Your task to perform on an android device: delete location history Image 0: 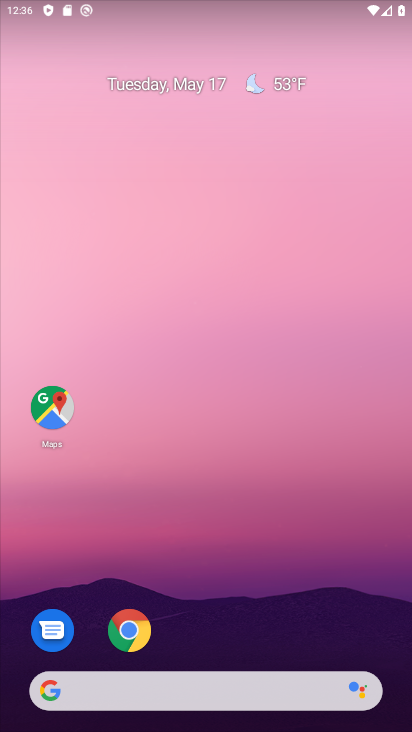
Step 0: drag from (199, 666) to (178, 111)
Your task to perform on an android device: delete location history Image 1: 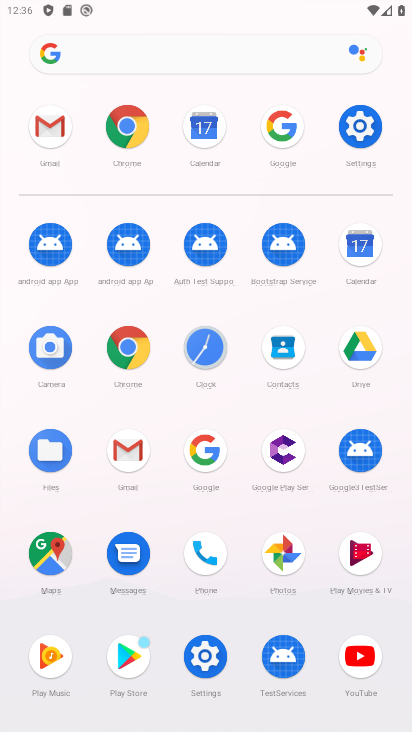
Step 1: click (359, 130)
Your task to perform on an android device: delete location history Image 2: 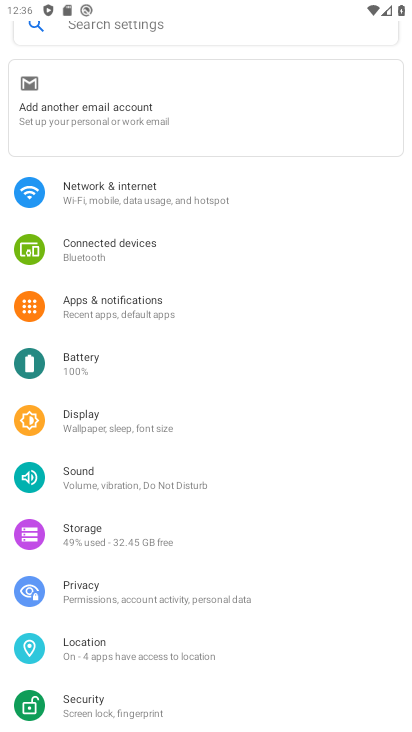
Step 2: click (120, 659)
Your task to perform on an android device: delete location history Image 3: 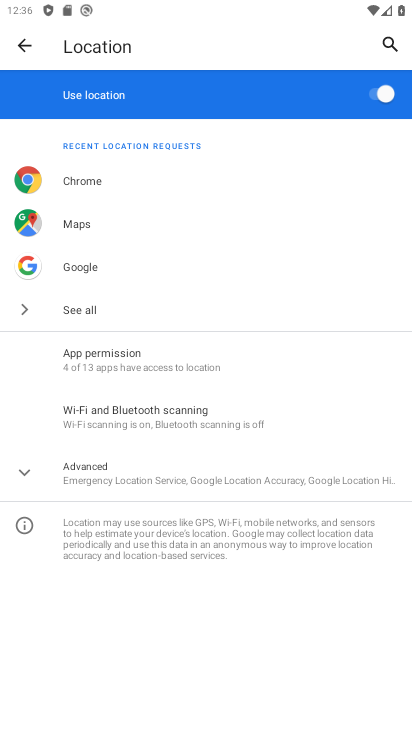
Step 3: click (111, 484)
Your task to perform on an android device: delete location history Image 4: 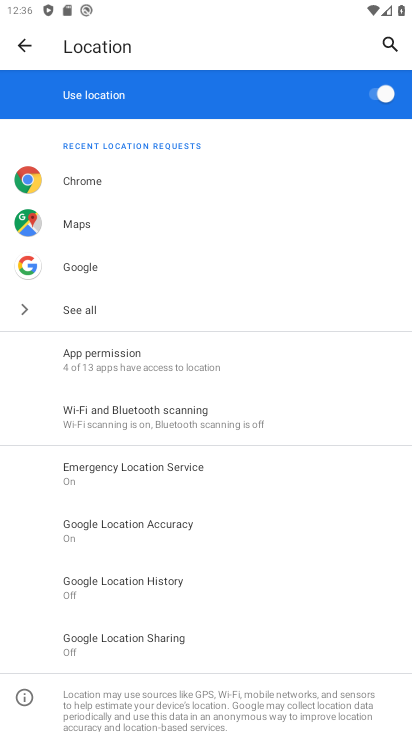
Step 4: click (152, 583)
Your task to perform on an android device: delete location history Image 5: 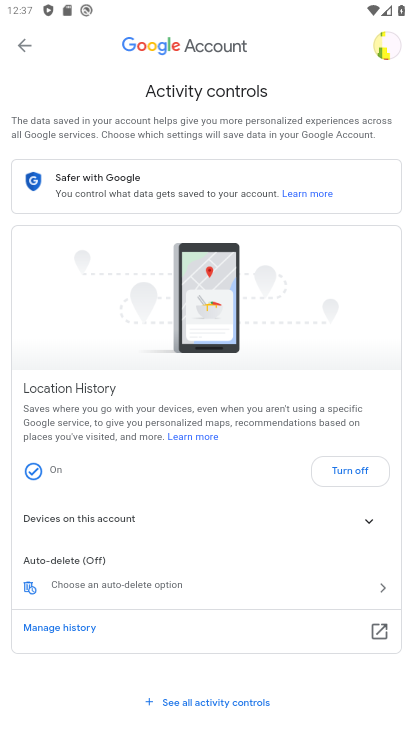
Step 5: click (131, 592)
Your task to perform on an android device: delete location history Image 6: 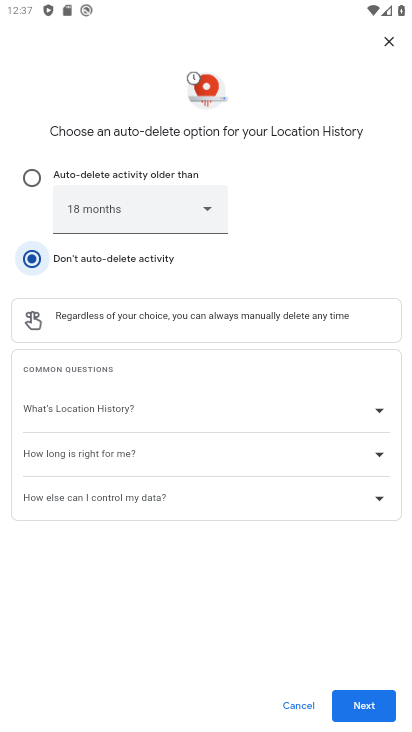
Step 6: click (352, 713)
Your task to perform on an android device: delete location history Image 7: 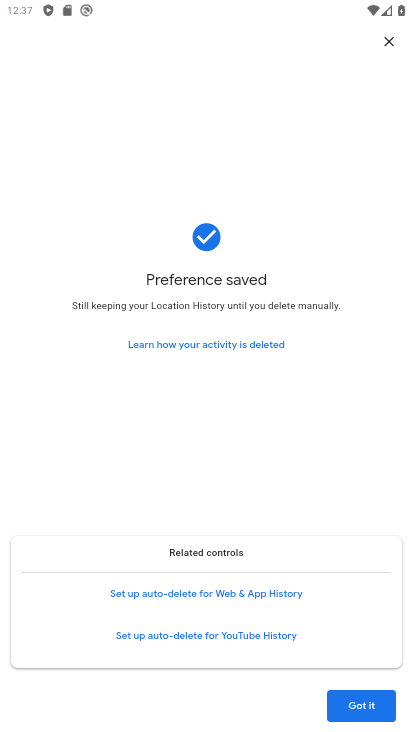
Step 7: click (345, 700)
Your task to perform on an android device: delete location history Image 8: 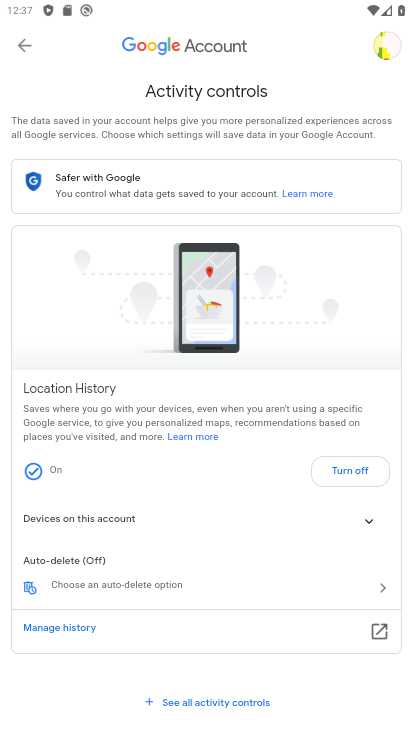
Step 8: task complete